Your task to perform on an android device: Search for Italian restaurants on Maps Image 0: 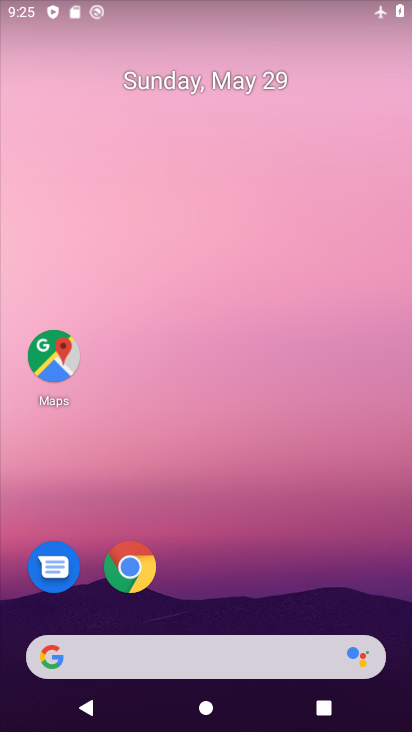
Step 0: click (52, 354)
Your task to perform on an android device: Search for Italian restaurants on Maps Image 1: 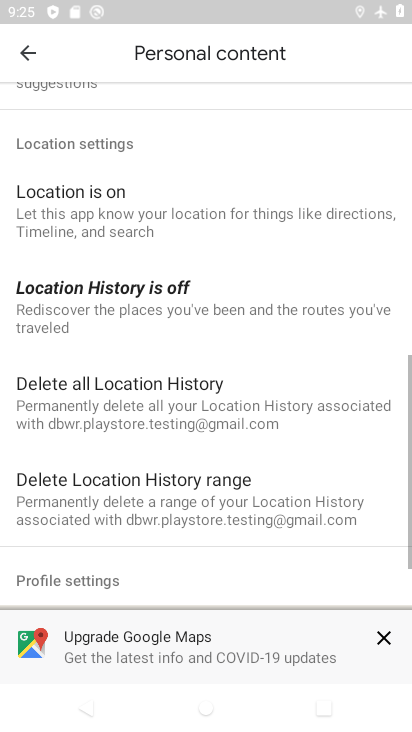
Step 1: press back button
Your task to perform on an android device: Search for Italian restaurants on Maps Image 2: 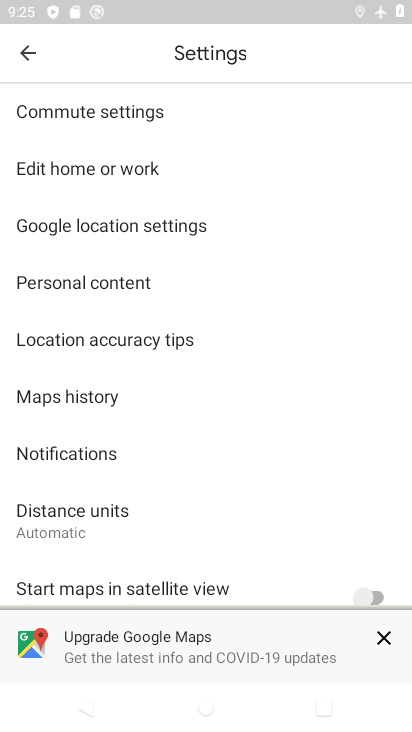
Step 2: press back button
Your task to perform on an android device: Search for Italian restaurants on Maps Image 3: 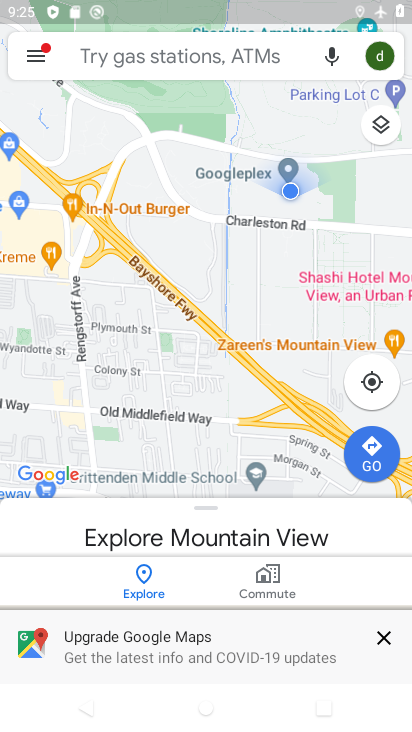
Step 3: click (134, 50)
Your task to perform on an android device: Search for Italian restaurants on Maps Image 4: 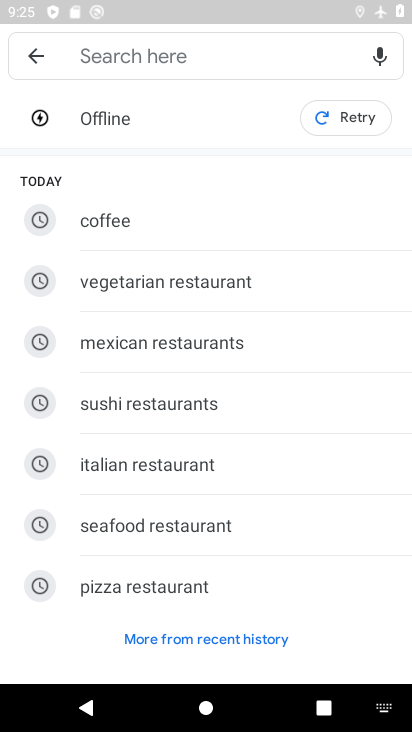
Step 4: type "italian restaurants"
Your task to perform on an android device: Search for Italian restaurants on Maps Image 5: 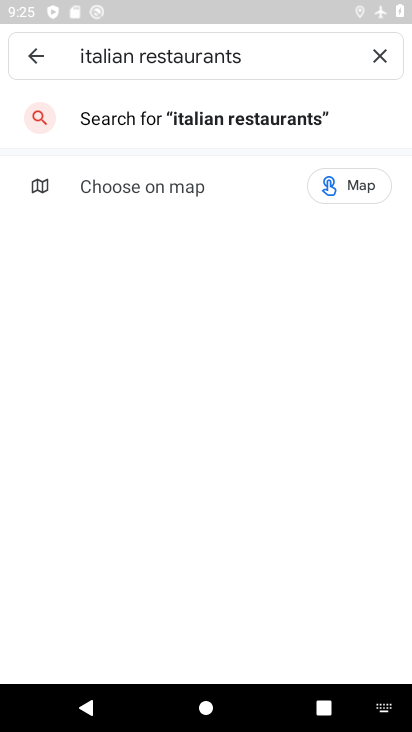
Step 5: click (239, 117)
Your task to perform on an android device: Search for Italian restaurants on Maps Image 6: 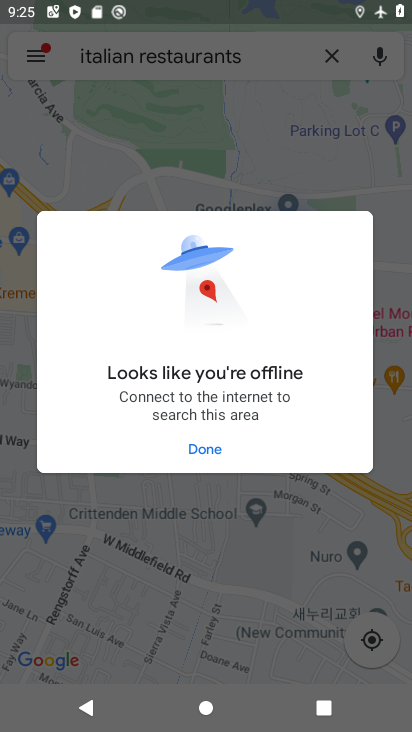
Step 6: task complete